Your task to perform on an android device: Add "logitech g pro" to the cart on ebay.com, then select checkout. Image 0: 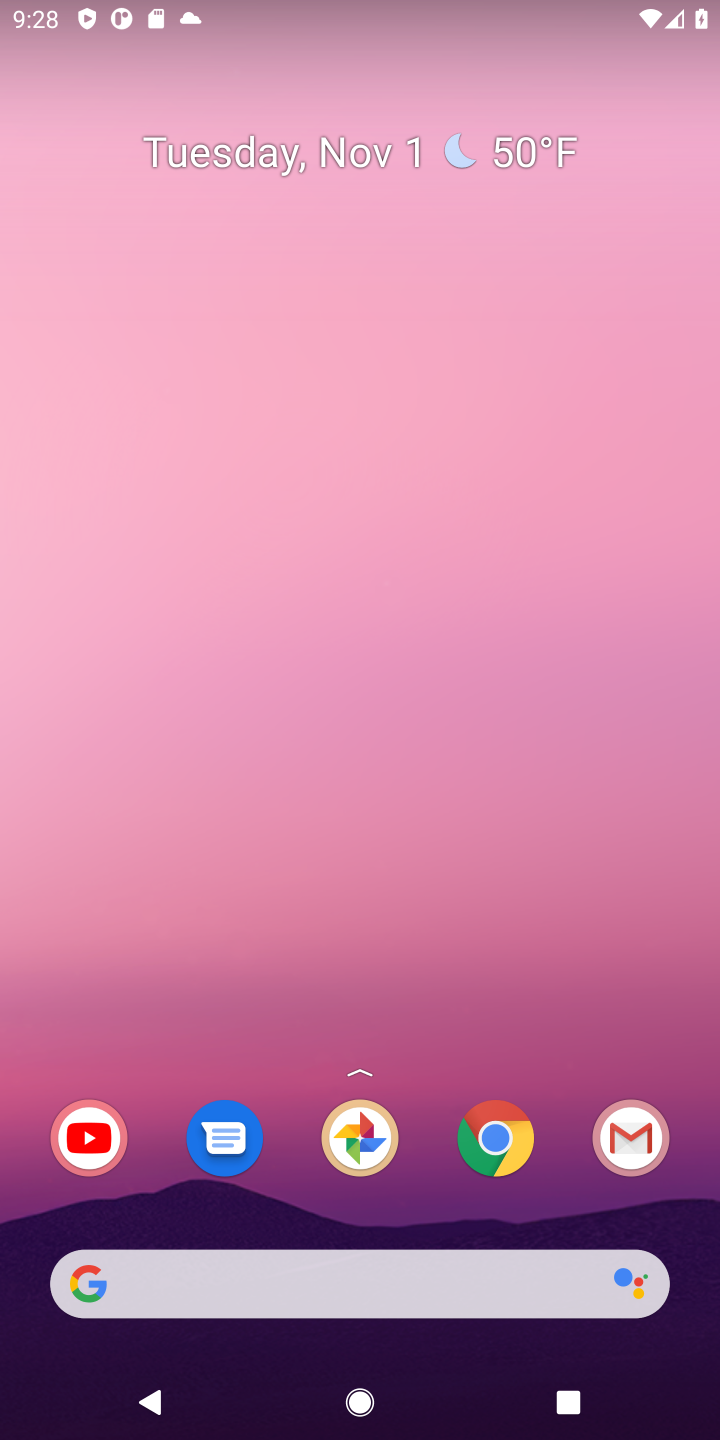
Step 0: click (498, 1144)
Your task to perform on an android device: Add "logitech g pro" to the cart on ebay.com, then select checkout. Image 1: 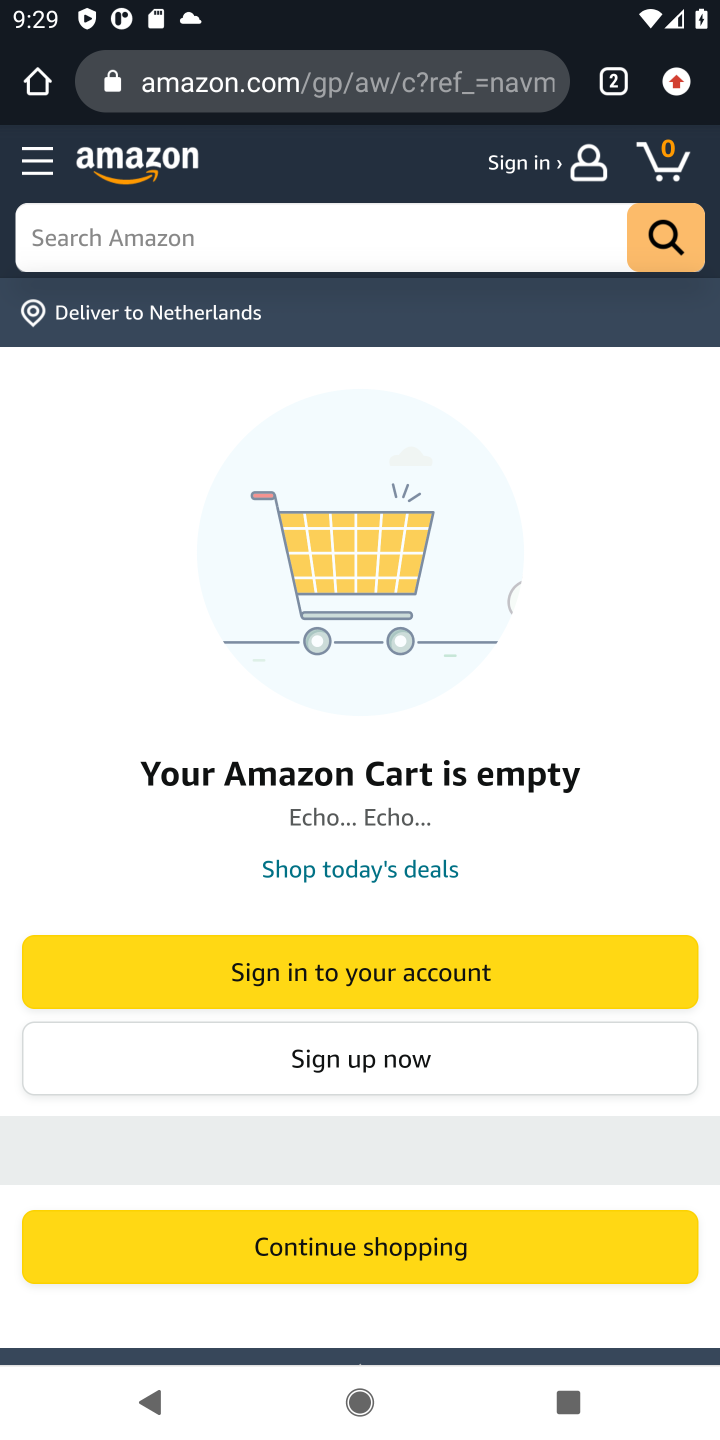
Step 1: click (332, 84)
Your task to perform on an android device: Add "logitech g pro" to the cart on ebay.com, then select checkout. Image 2: 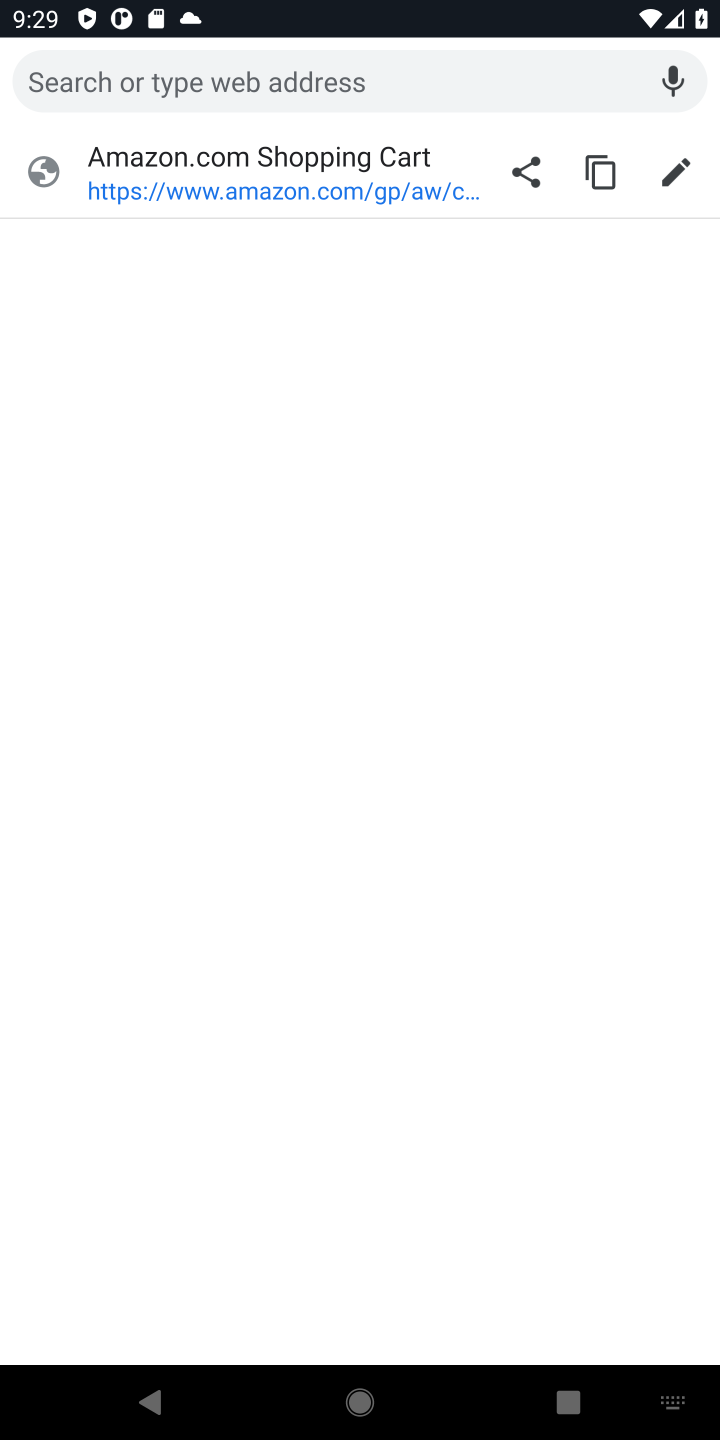
Step 2: type "ebay.com"
Your task to perform on an android device: Add "logitech g pro" to the cart on ebay.com, then select checkout. Image 3: 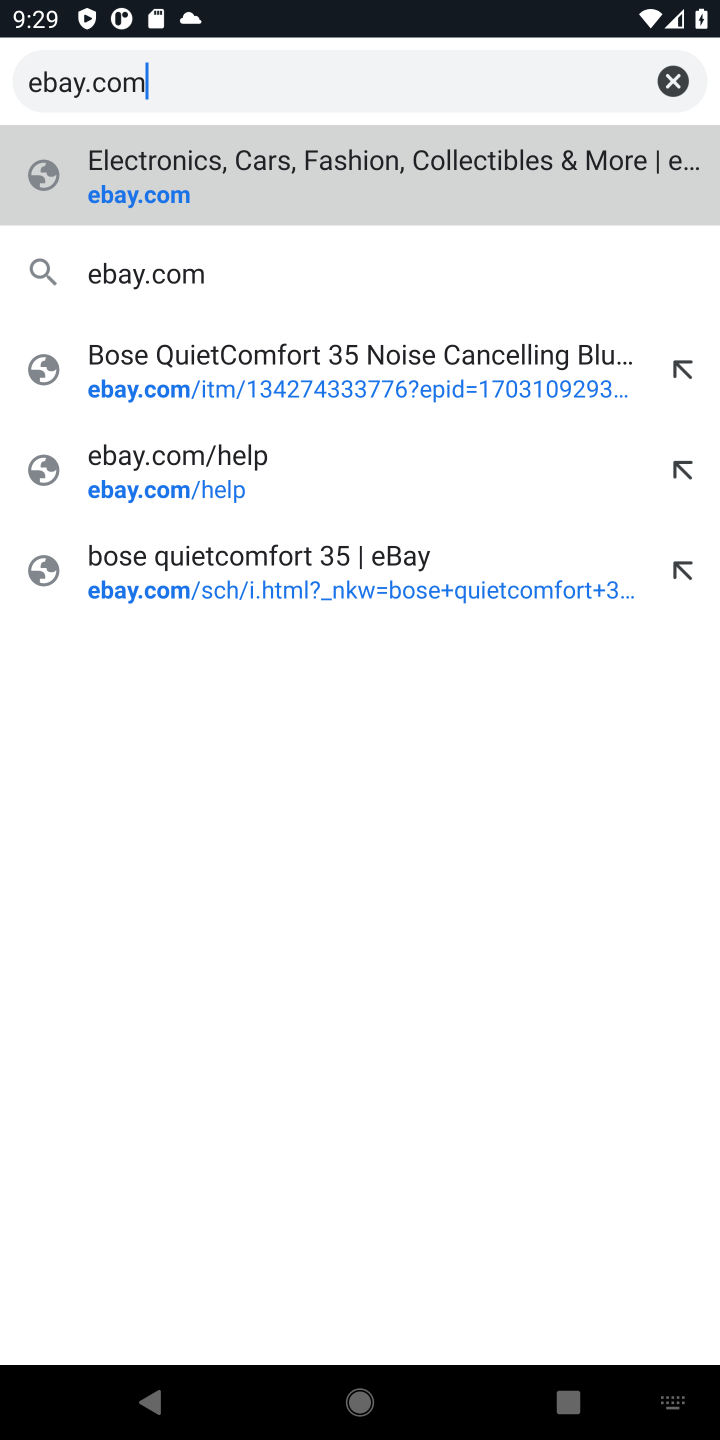
Step 3: click (121, 281)
Your task to perform on an android device: Add "logitech g pro" to the cart on ebay.com, then select checkout. Image 4: 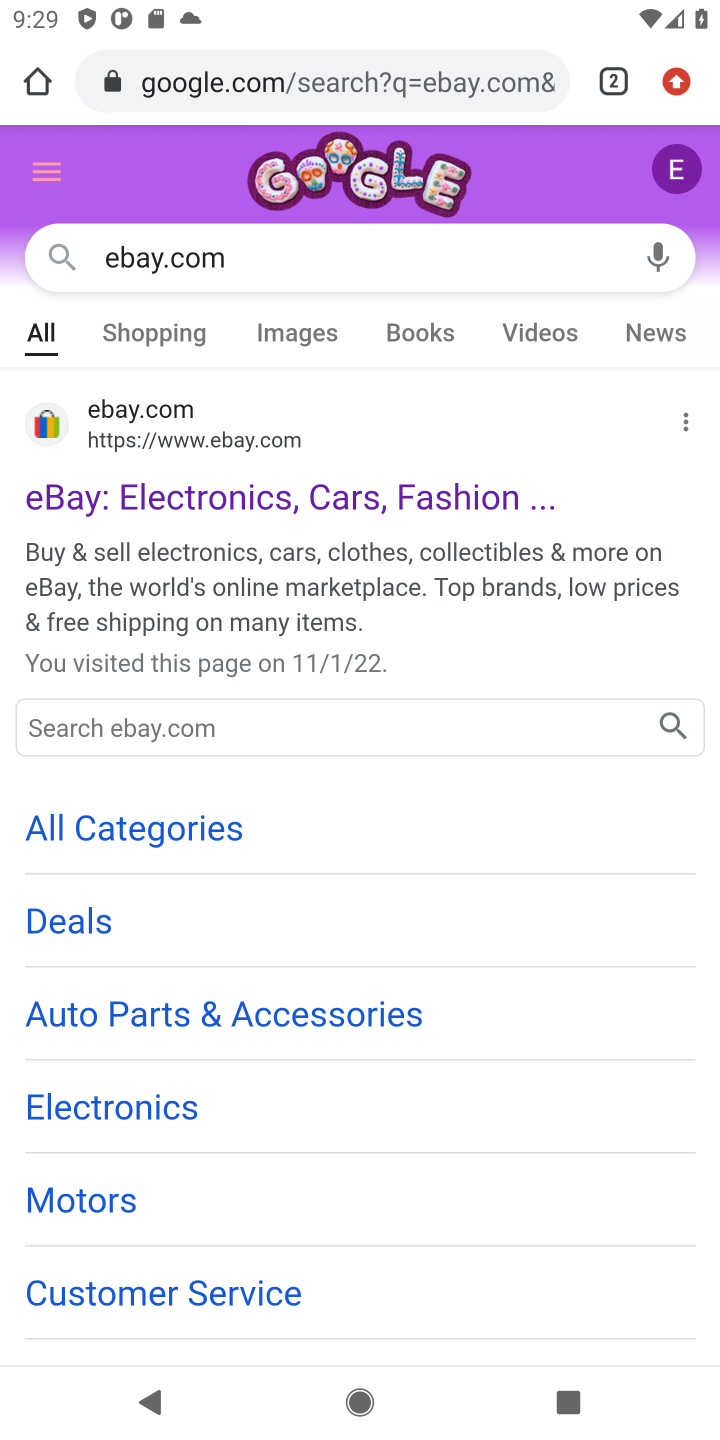
Step 4: click (282, 499)
Your task to perform on an android device: Add "logitech g pro" to the cart on ebay.com, then select checkout. Image 5: 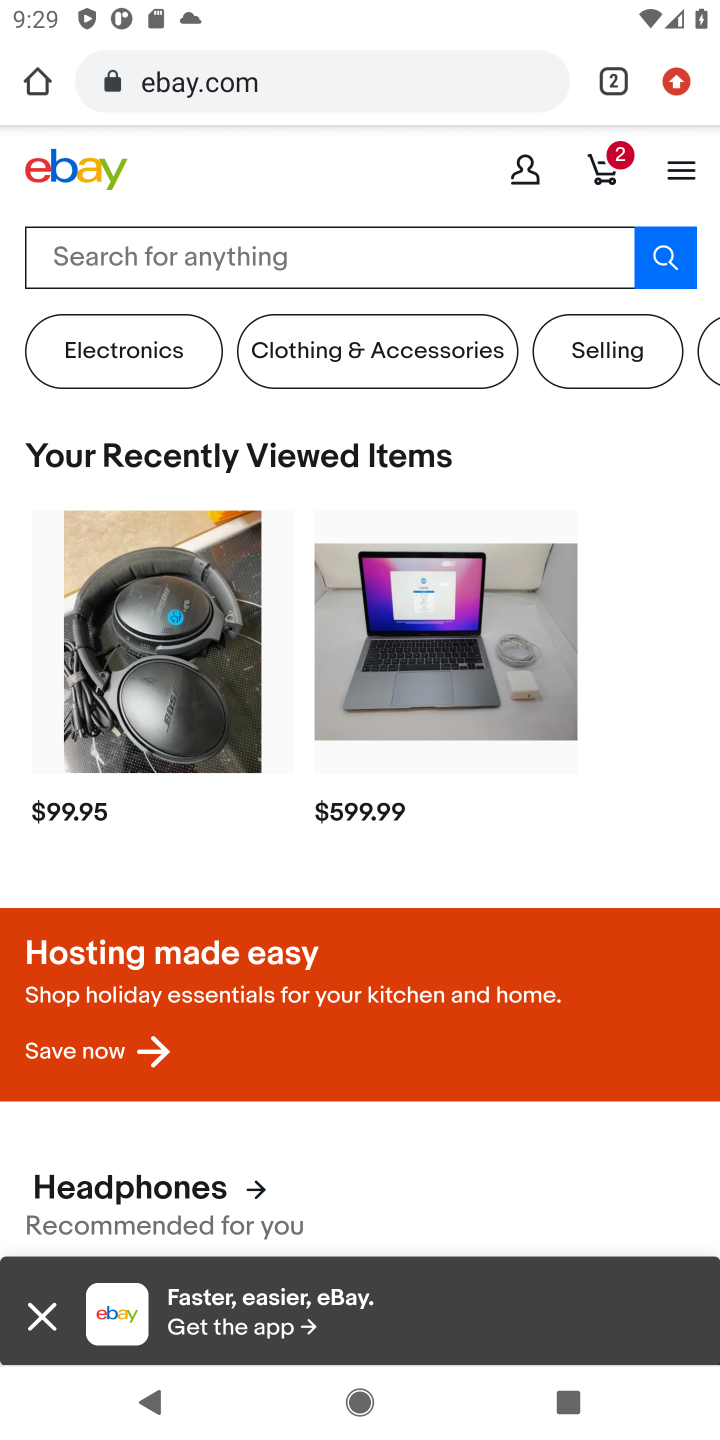
Step 5: click (337, 256)
Your task to perform on an android device: Add "logitech g pro" to the cart on ebay.com, then select checkout. Image 6: 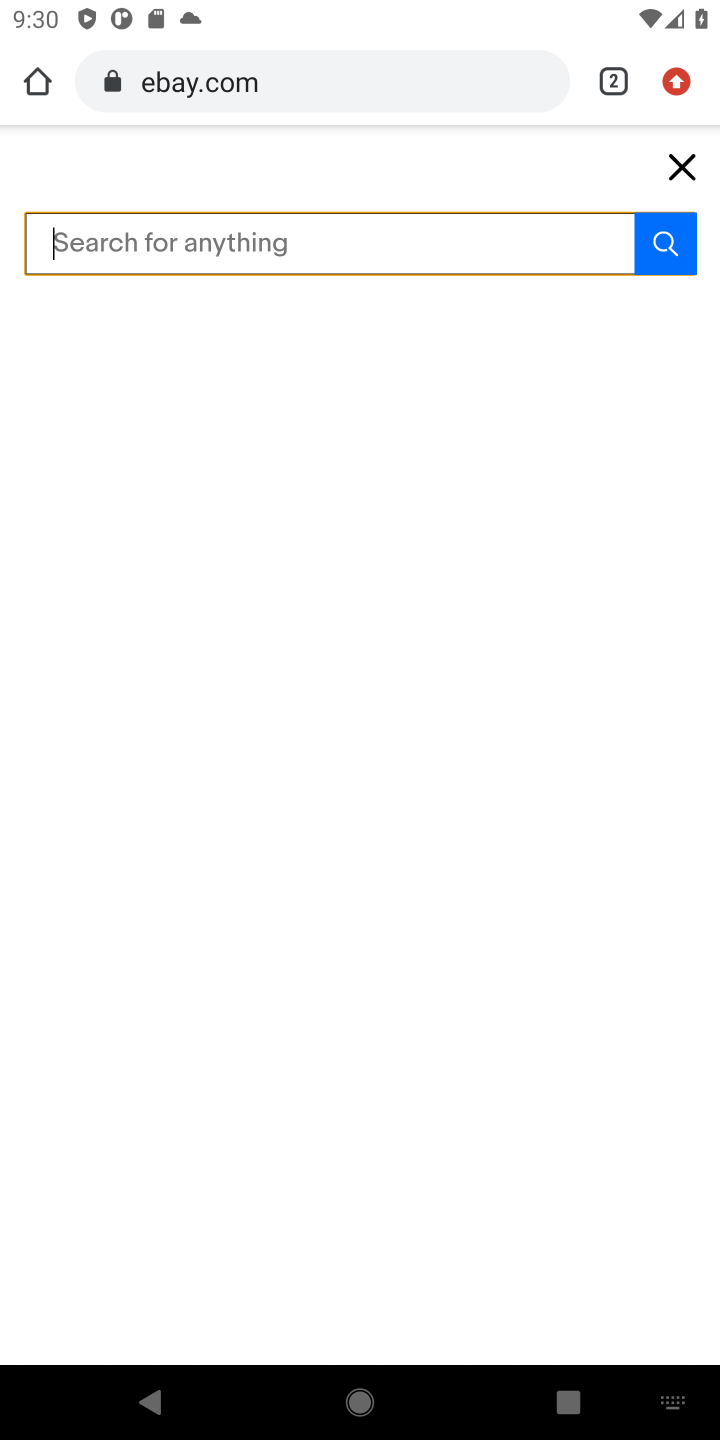
Step 6: type "logitech g pro"
Your task to perform on an android device: Add "logitech g pro" to the cart on ebay.com, then select checkout. Image 7: 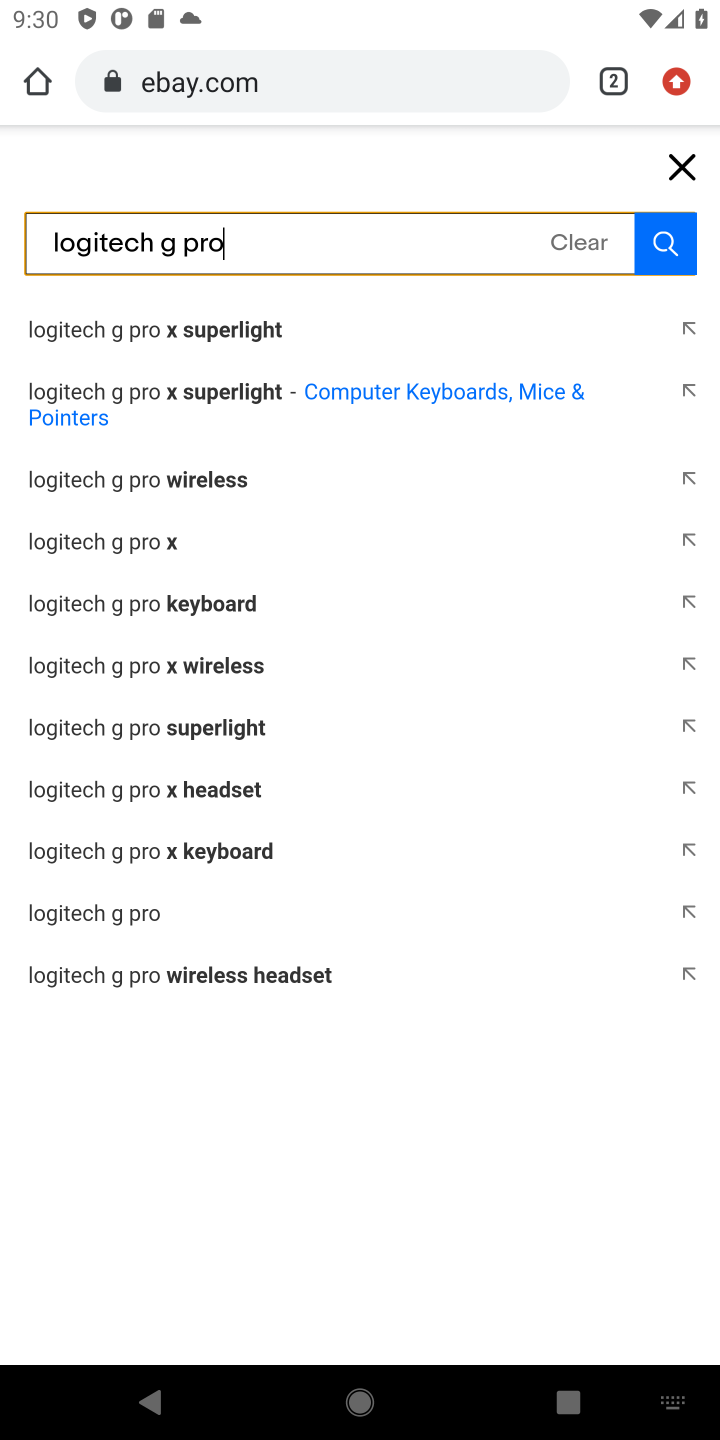
Step 7: click (665, 246)
Your task to perform on an android device: Add "logitech g pro" to the cart on ebay.com, then select checkout. Image 8: 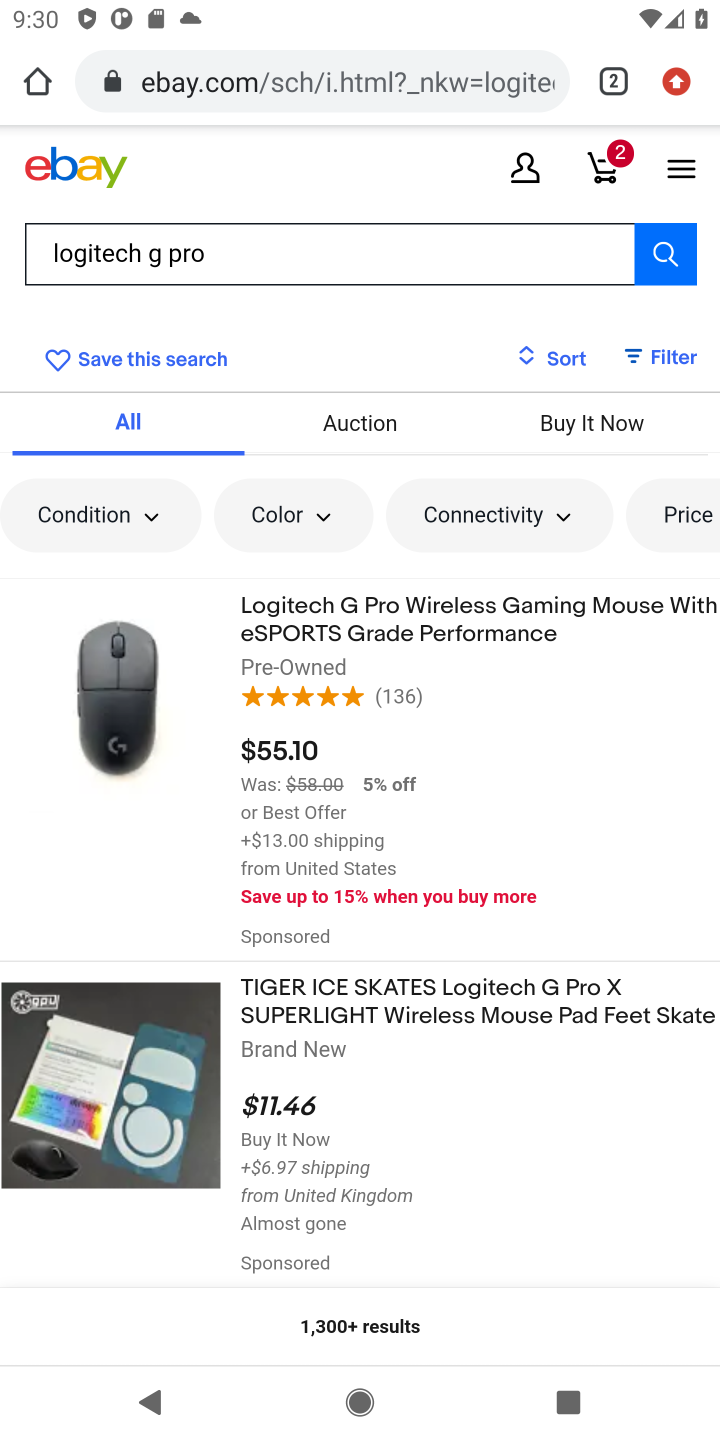
Step 8: click (405, 617)
Your task to perform on an android device: Add "logitech g pro" to the cart on ebay.com, then select checkout. Image 9: 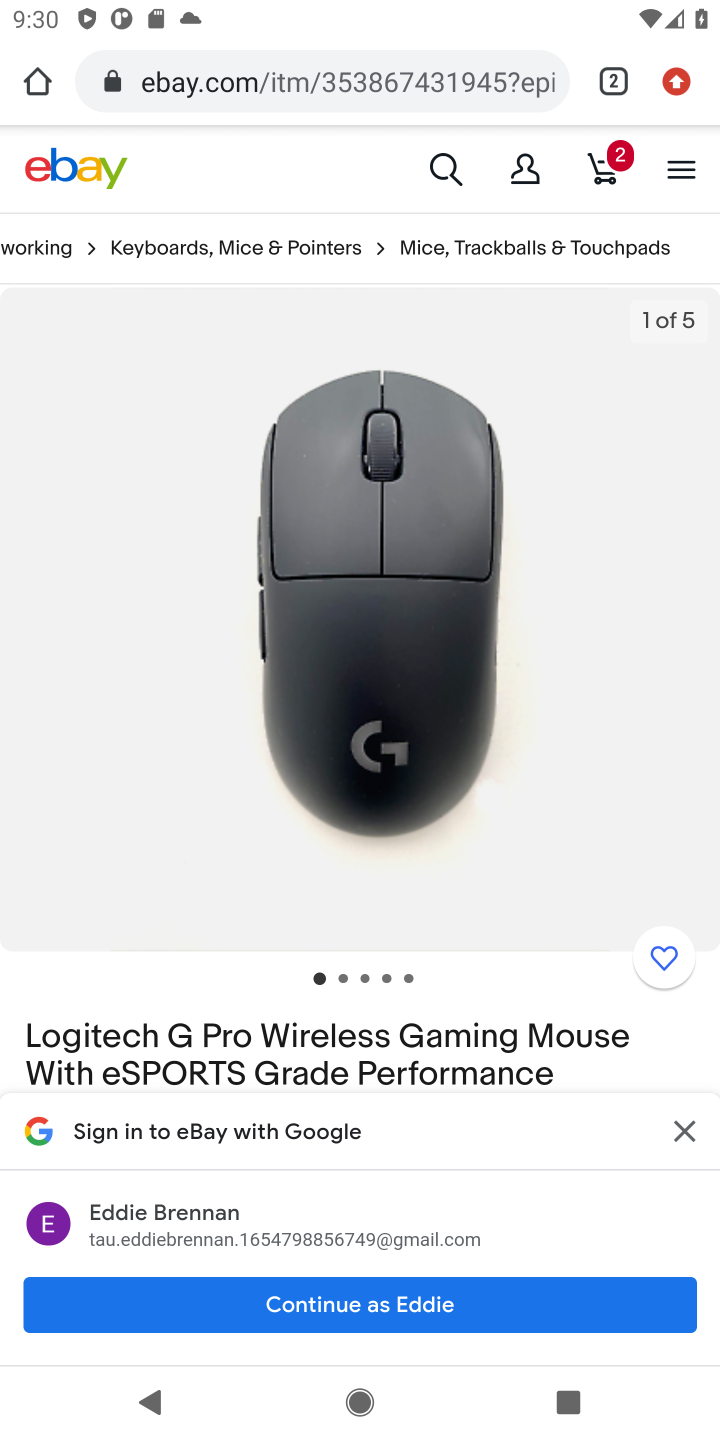
Step 9: click (683, 1129)
Your task to perform on an android device: Add "logitech g pro" to the cart on ebay.com, then select checkout. Image 10: 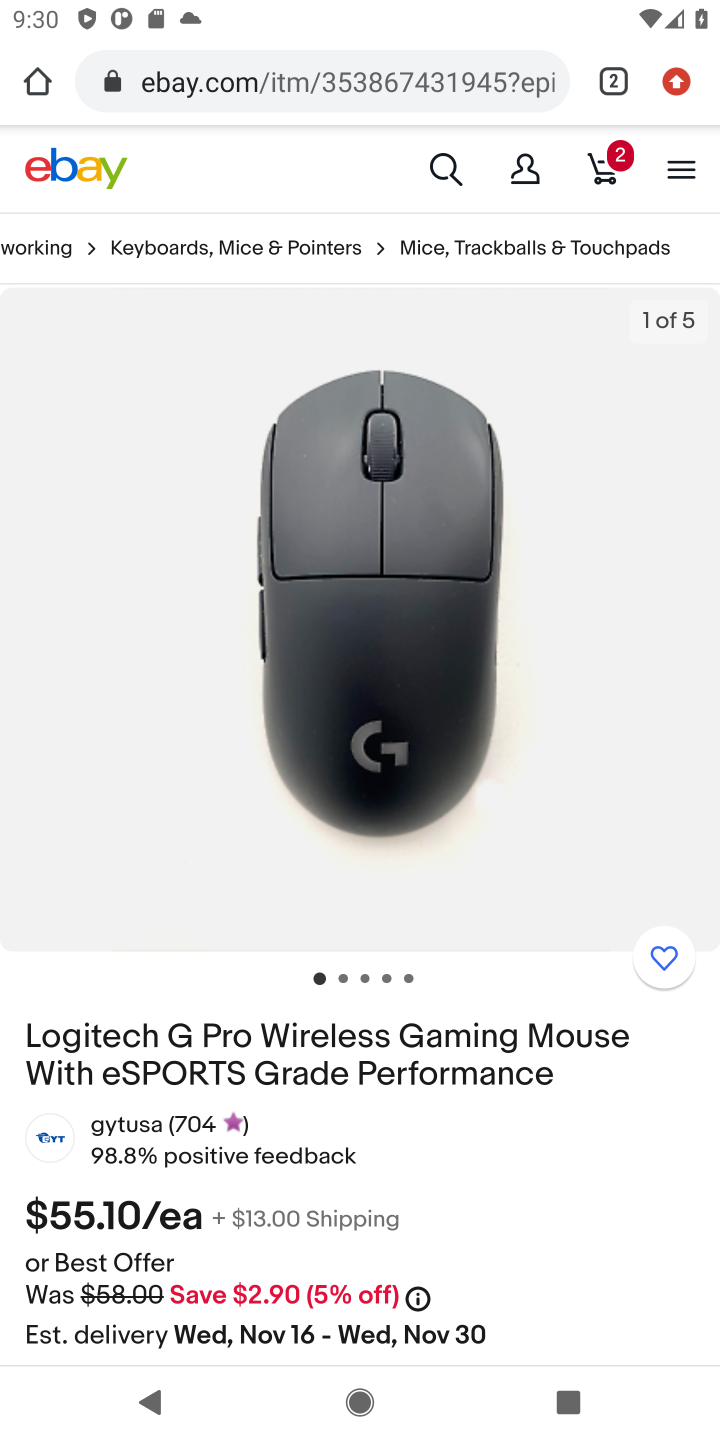
Step 10: drag from (406, 1168) to (479, 466)
Your task to perform on an android device: Add "logitech g pro" to the cart on ebay.com, then select checkout. Image 11: 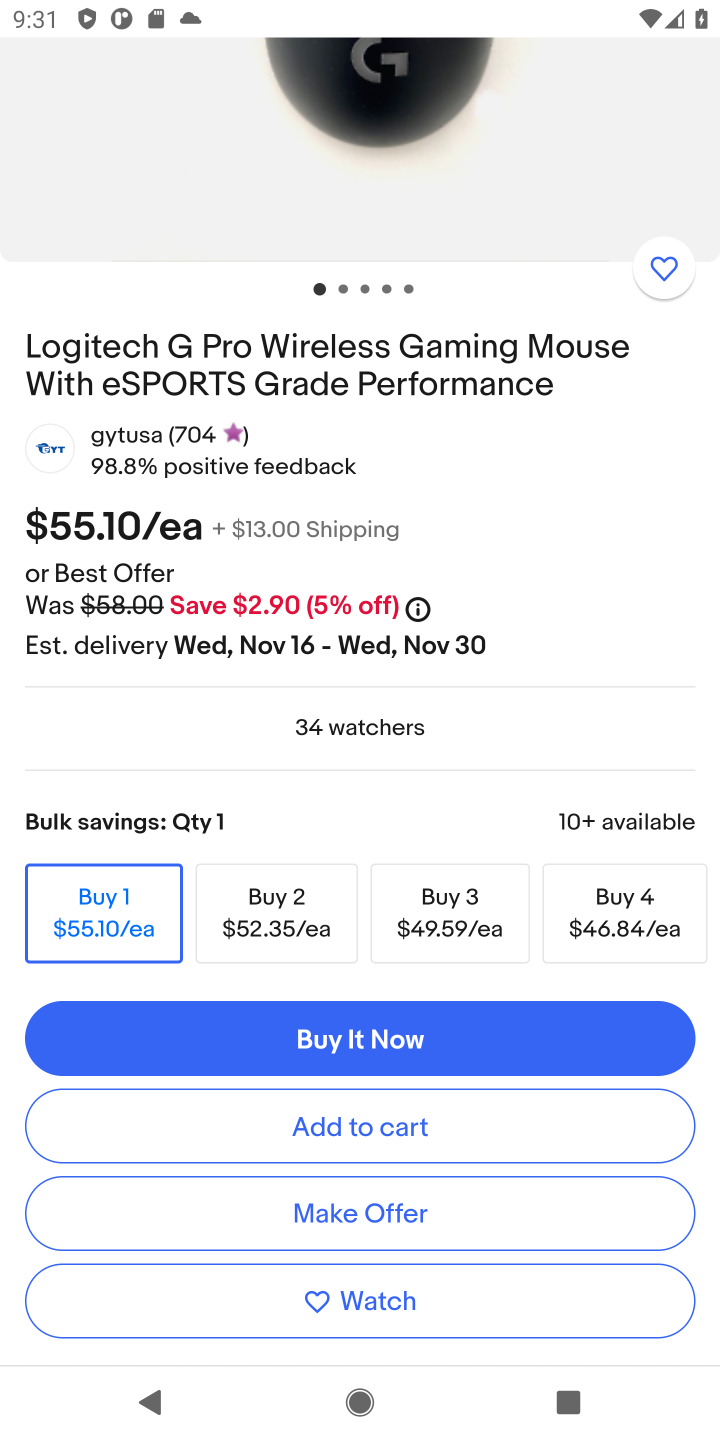
Step 11: click (392, 1120)
Your task to perform on an android device: Add "logitech g pro" to the cart on ebay.com, then select checkout. Image 12: 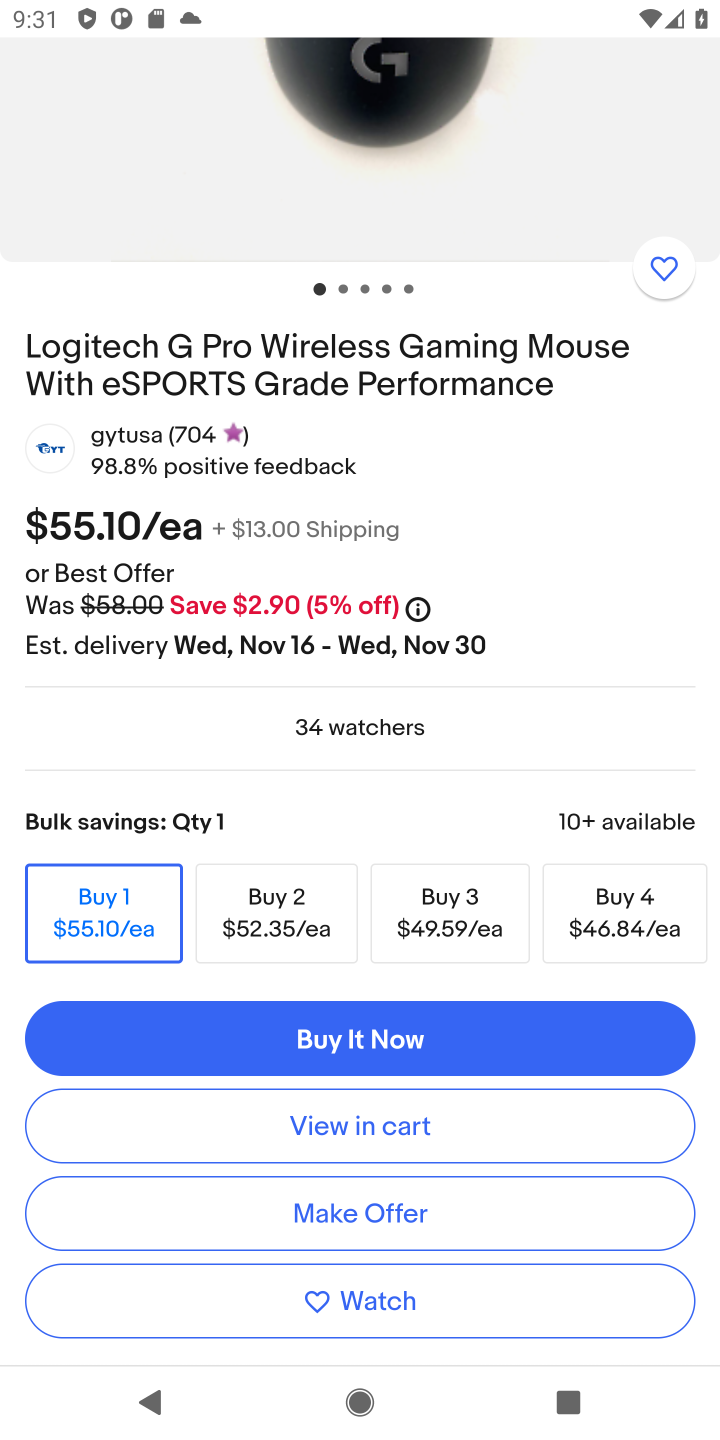
Step 12: click (392, 1120)
Your task to perform on an android device: Add "logitech g pro" to the cart on ebay.com, then select checkout. Image 13: 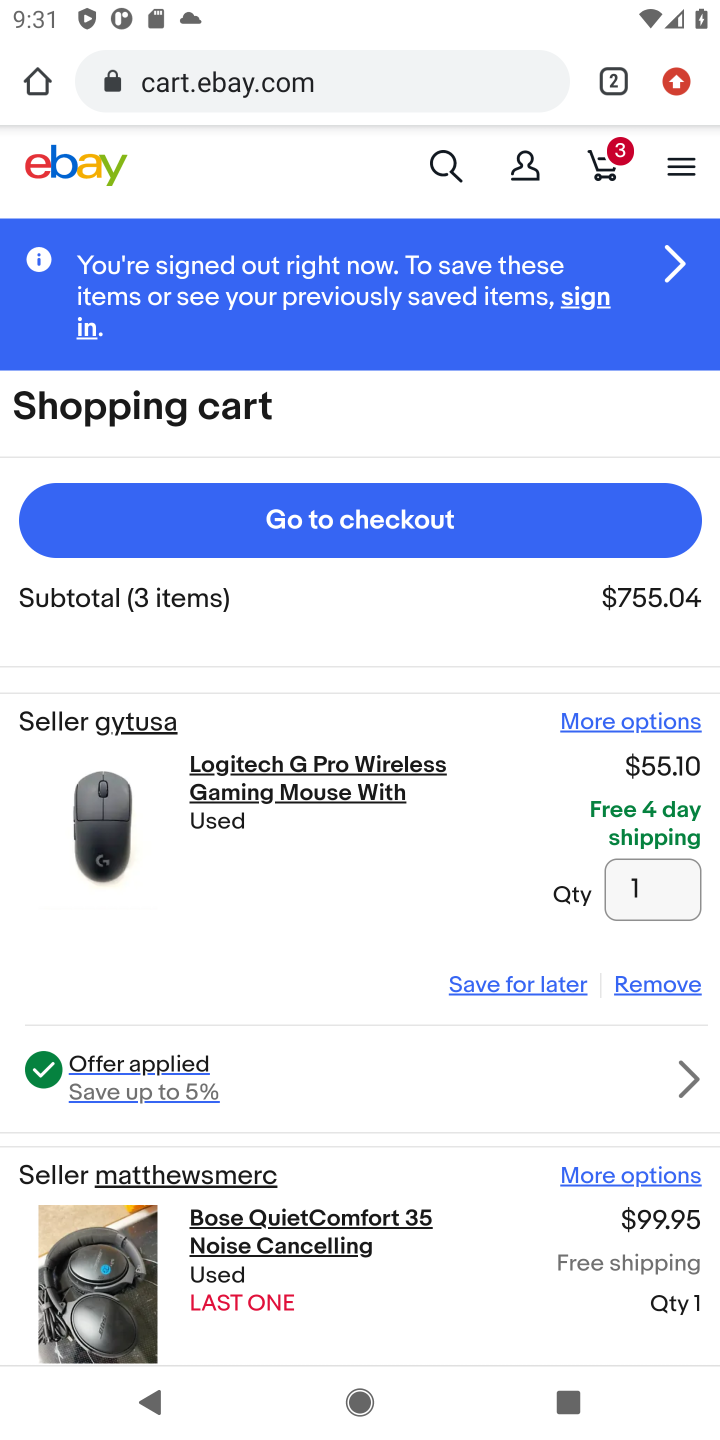
Step 13: click (423, 521)
Your task to perform on an android device: Add "logitech g pro" to the cart on ebay.com, then select checkout. Image 14: 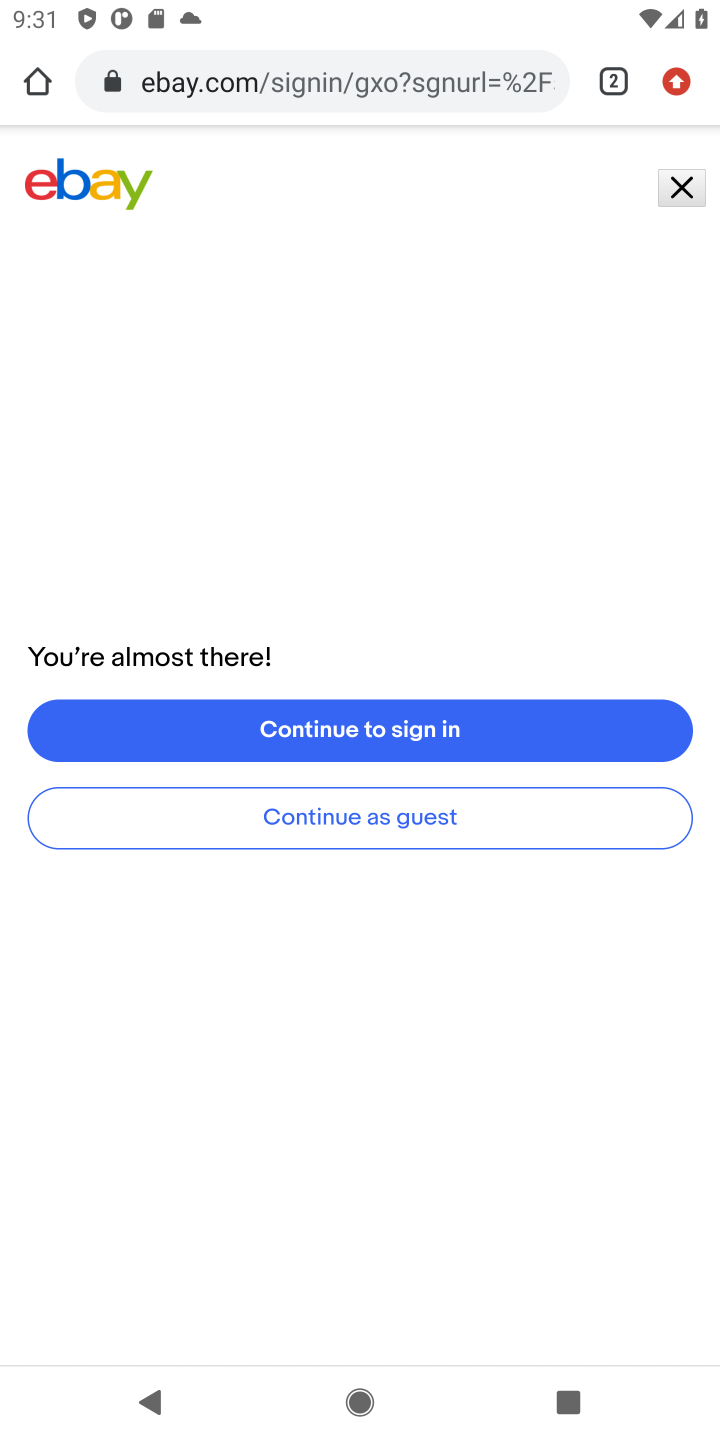
Step 14: task complete